Your task to perform on an android device: Open battery settings Image 0: 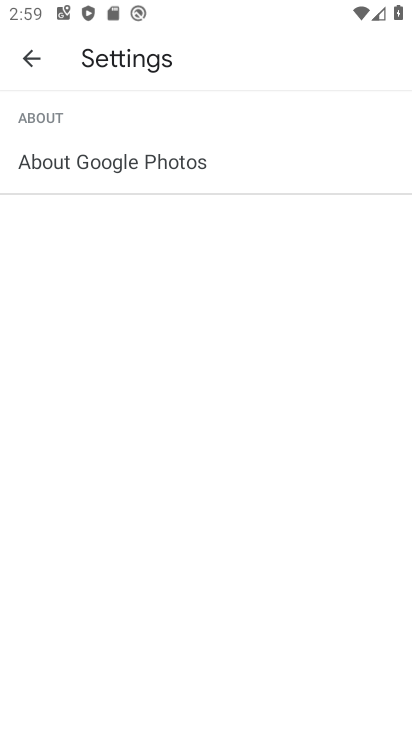
Step 0: press home button
Your task to perform on an android device: Open battery settings Image 1: 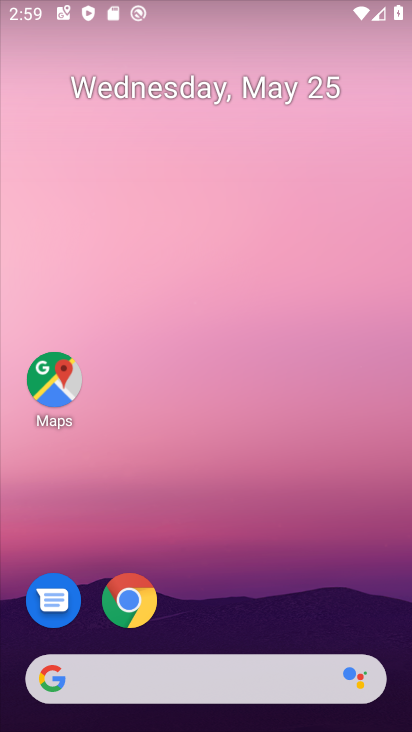
Step 1: drag from (35, 549) to (207, 152)
Your task to perform on an android device: Open battery settings Image 2: 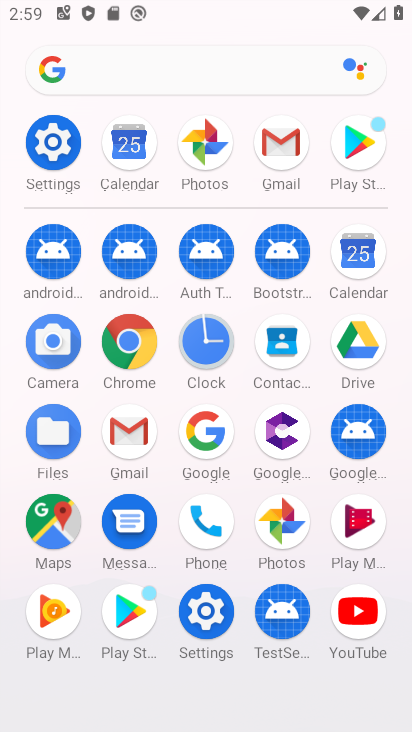
Step 2: click (64, 146)
Your task to perform on an android device: Open battery settings Image 3: 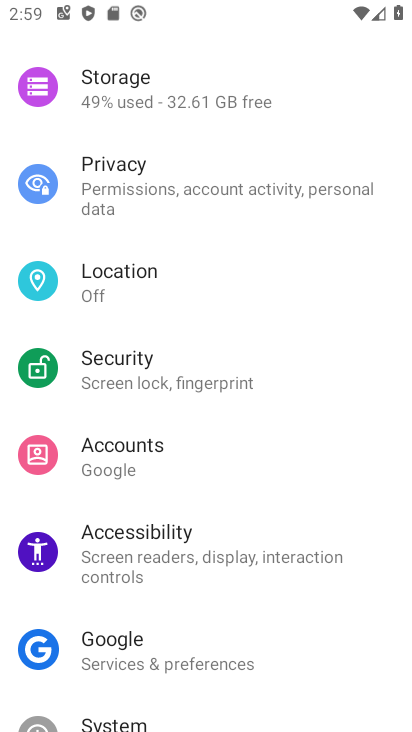
Step 3: drag from (205, 69) to (241, 669)
Your task to perform on an android device: Open battery settings Image 4: 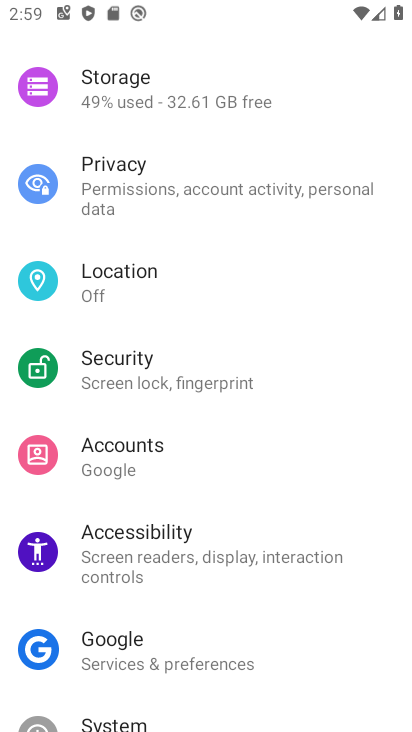
Step 4: drag from (111, 108) to (124, 555)
Your task to perform on an android device: Open battery settings Image 5: 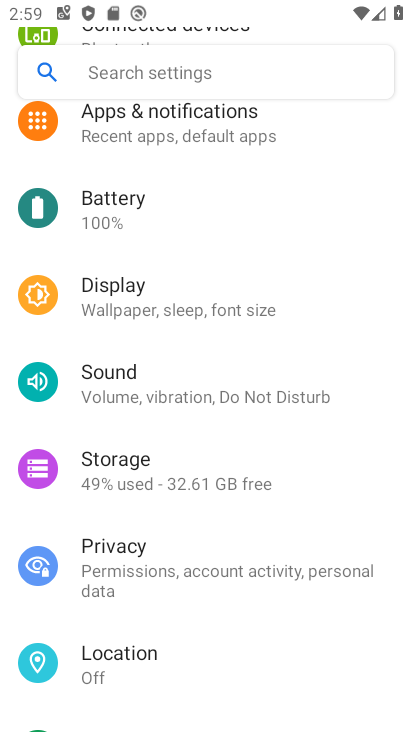
Step 5: click (108, 197)
Your task to perform on an android device: Open battery settings Image 6: 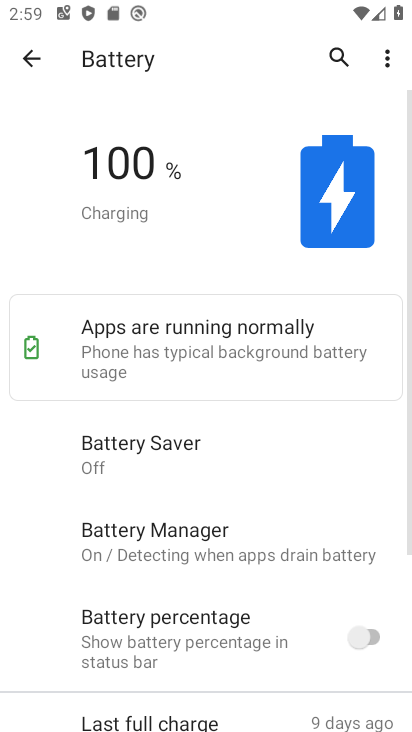
Step 6: task complete